Your task to perform on an android device: turn on priority inbox in the gmail app Image 0: 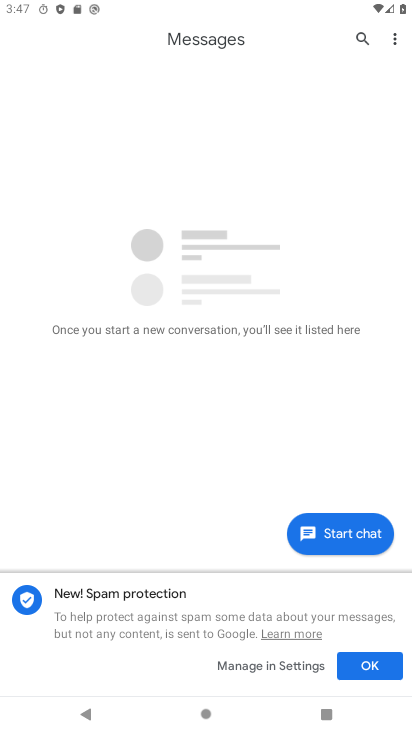
Step 0: press home button
Your task to perform on an android device: turn on priority inbox in the gmail app Image 1: 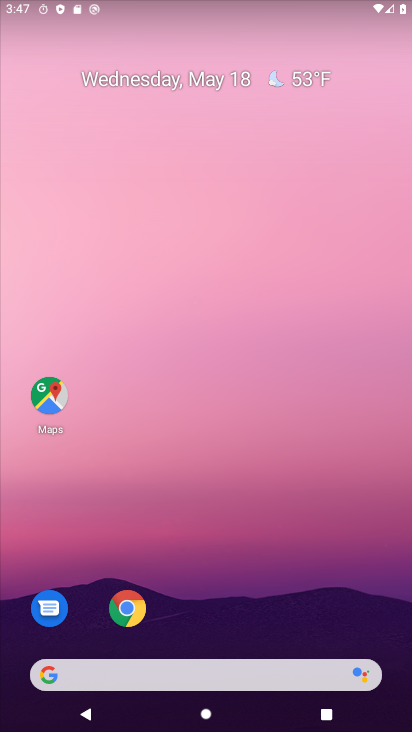
Step 1: drag from (213, 674) to (289, 127)
Your task to perform on an android device: turn on priority inbox in the gmail app Image 2: 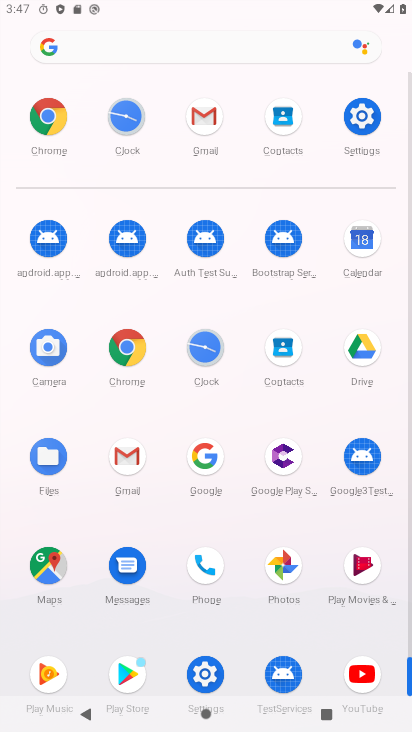
Step 2: click (135, 452)
Your task to perform on an android device: turn on priority inbox in the gmail app Image 3: 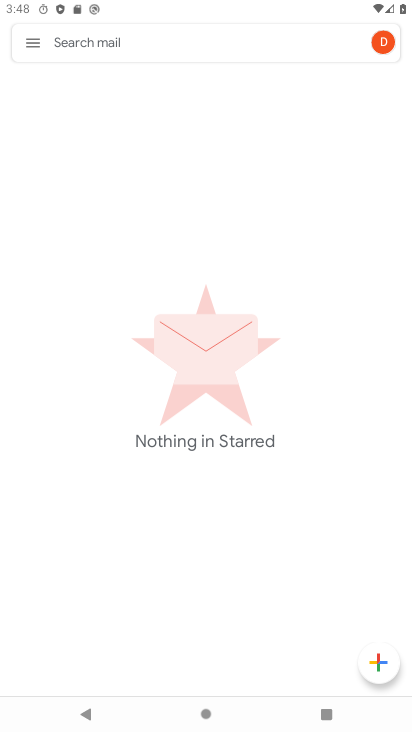
Step 3: click (27, 39)
Your task to perform on an android device: turn on priority inbox in the gmail app Image 4: 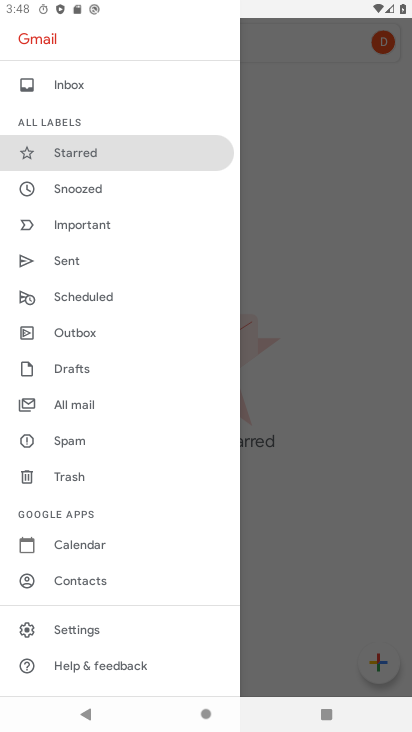
Step 4: drag from (181, 570) to (174, 261)
Your task to perform on an android device: turn on priority inbox in the gmail app Image 5: 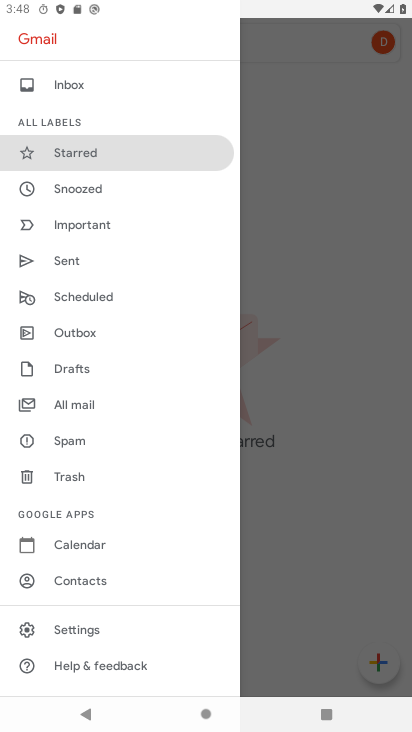
Step 5: click (123, 626)
Your task to perform on an android device: turn on priority inbox in the gmail app Image 6: 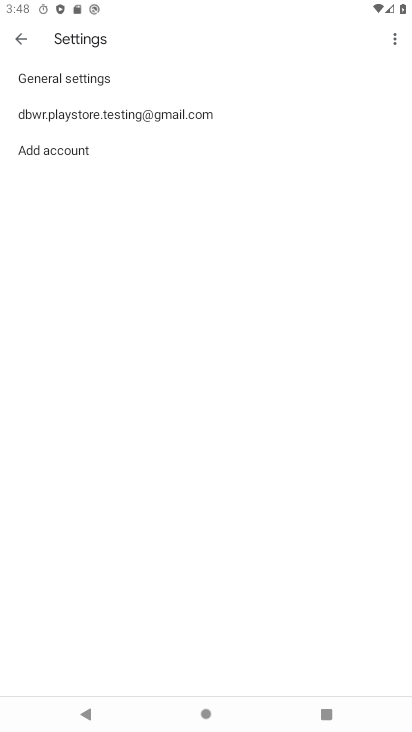
Step 6: click (100, 110)
Your task to perform on an android device: turn on priority inbox in the gmail app Image 7: 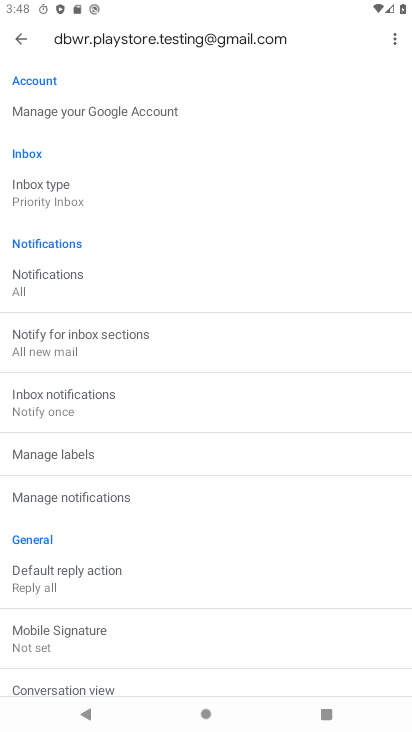
Step 7: task complete